Your task to perform on an android device: turn on data saver in the chrome app Image 0: 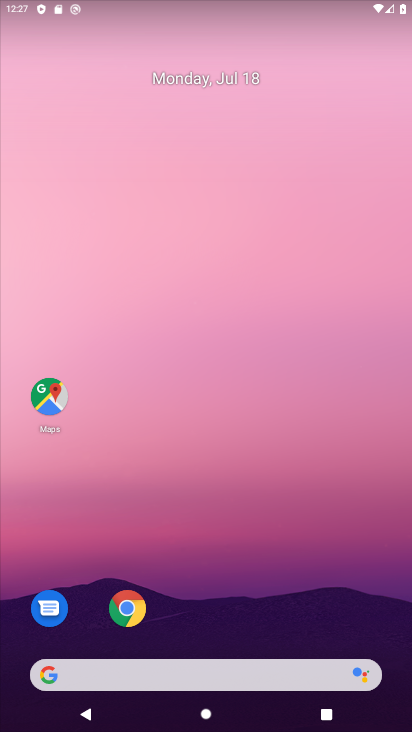
Step 0: drag from (311, 629) to (246, 113)
Your task to perform on an android device: turn on data saver in the chrome app Image 1: 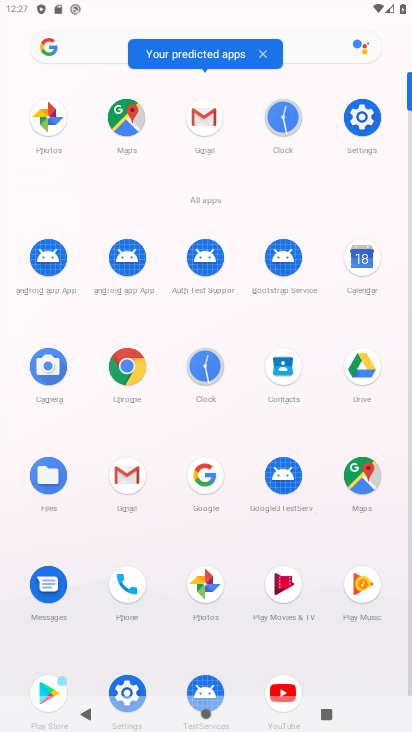
Step 1: click (135, 365)
Your task to perform on an android device: turn on data saver in the chrome app Image 2: 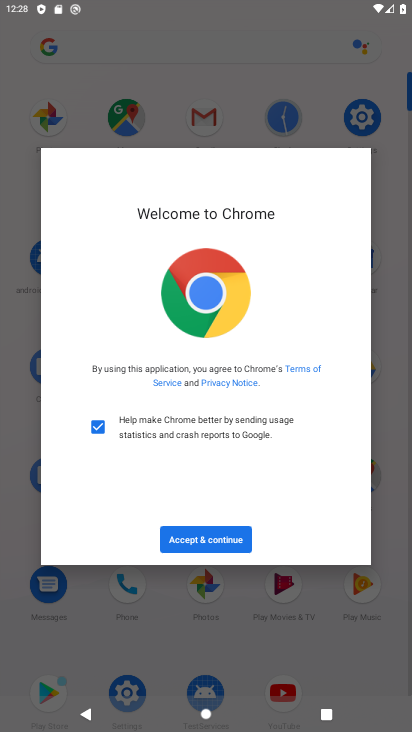
Step 2: click (228, 535)
Your task to perform on an android device: turn on data saver in the chrome app Image 3: 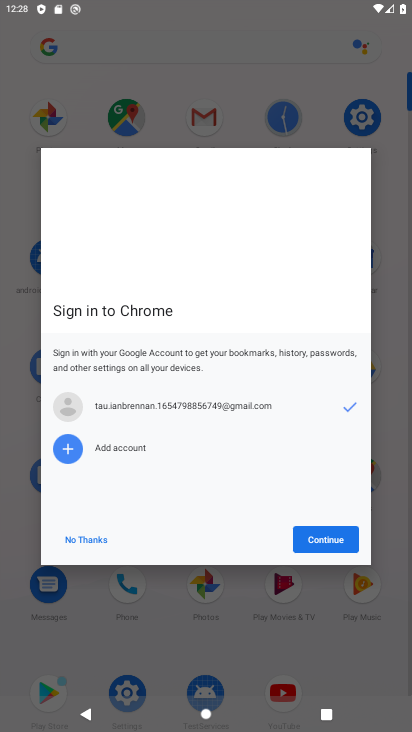
Step 3: click (325, 540)
Your task to perform on an android device: turn on data saver in the chrome app Image 4: 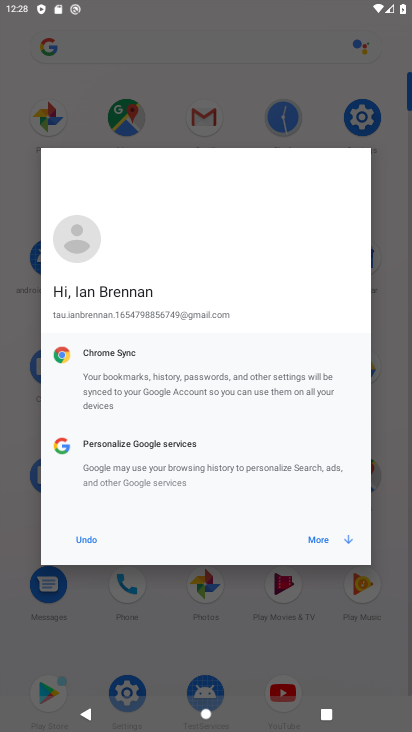
Step 4: click (327, 540)
Your task to perform on an android device: turn on data saver in the chrome app Image 5: 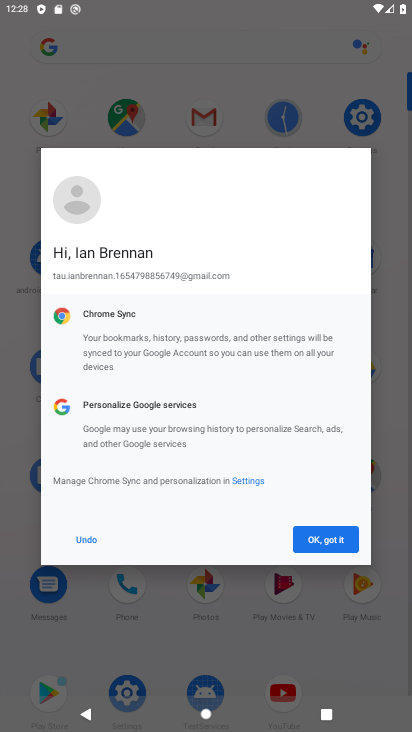
Step 5: click (327, 540)
Your task to perform on an android device: turn on data saver in the chrome app Image 6: 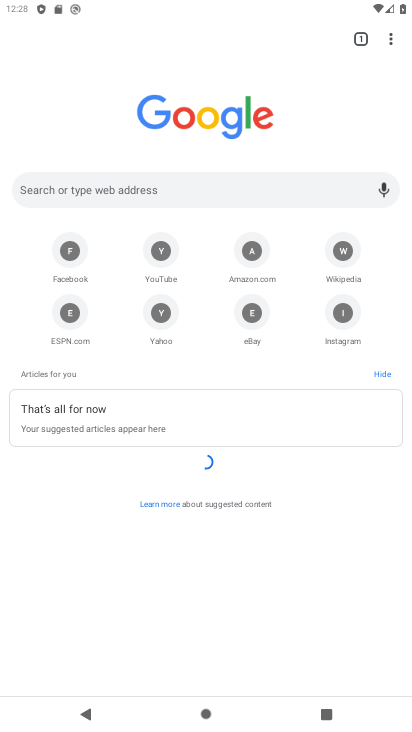
Step 6: click (387, 40)
Your task to perform on an android device: turn on data saver in the chrome app Image 7: 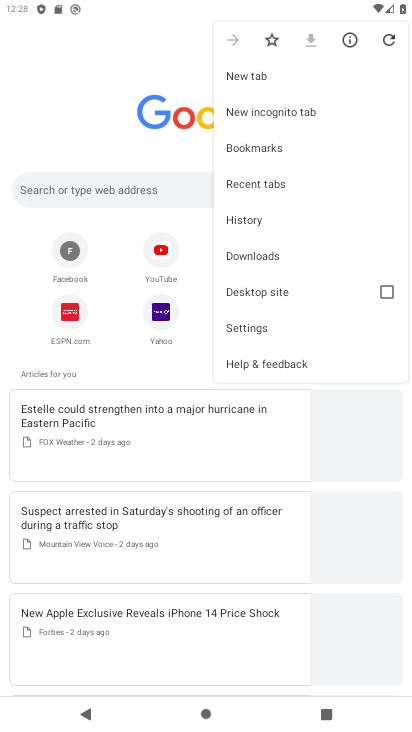
Step 7: click (291, 326)
Your task to perform on an android device: turn on data saver in the chrome app Image 8: 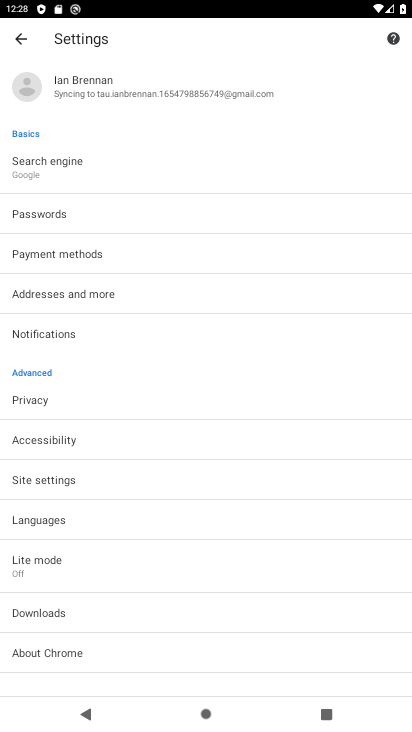
Step 8: click (95, 559)
Your task to perform on an android device: turn on data saver in the chrome app Image 9: 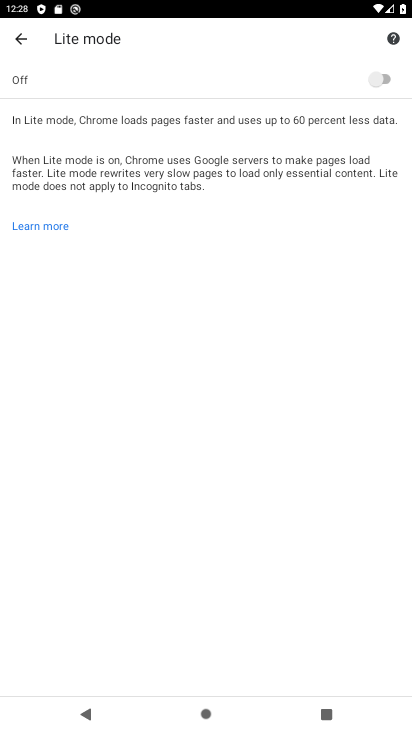
Step 9: click (389, 70)
Your task to perform on an android device: turn on data saver in the chrome app Image 10: 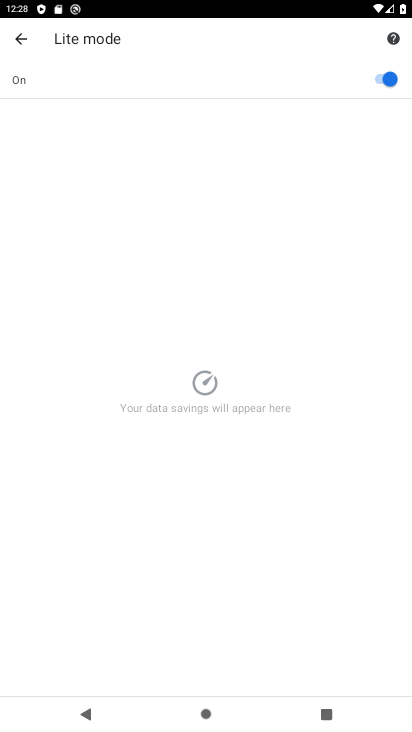
Step 10: task complete